Your task to perform on an android device: toggle pop-ups in chrome Image 0: 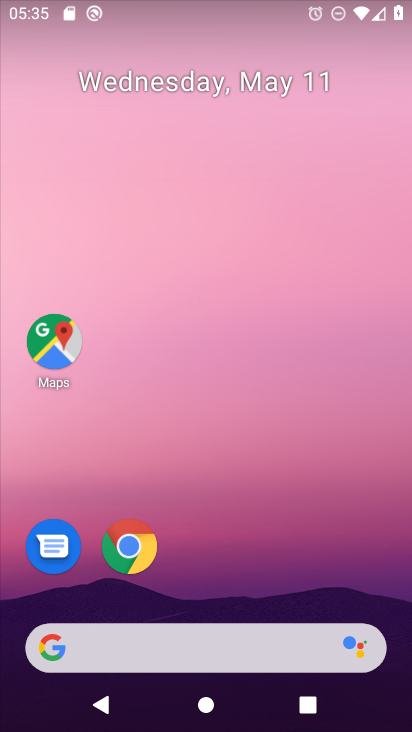
Step 0: drag from (314, 633) to (295, 75)
Your task to perform on an android device: toggle pop-ups in chrome Image 1: 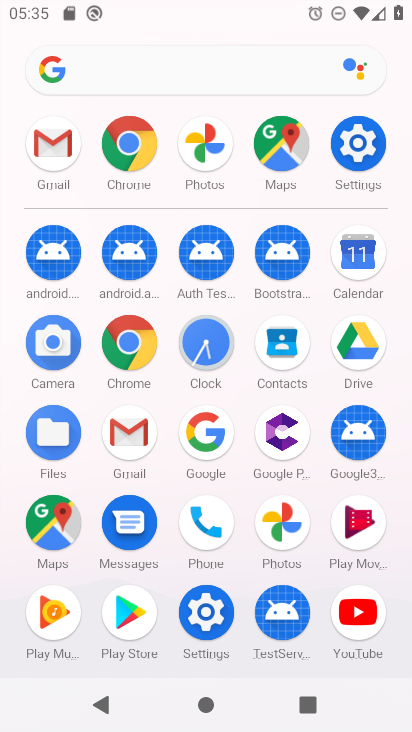
Step 1: click (133, 348)
Your task to perform on an android device: toggle pop-ups in chrome Image 2: 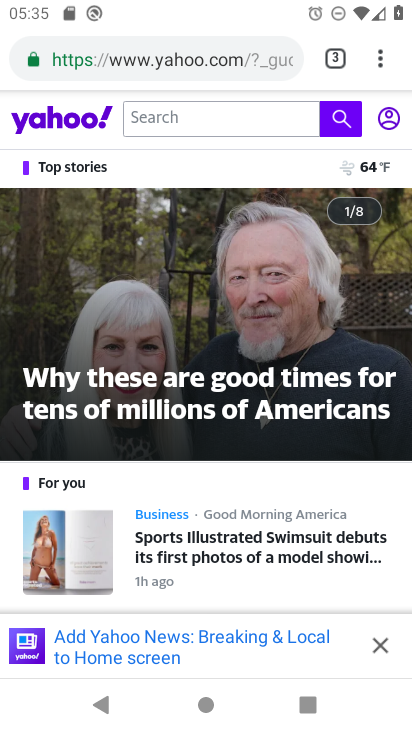
Step 2: drag from (372, 60) to (268, 650)
Your task to perform on an android device: toggle pop-ups in chrome Image 3: 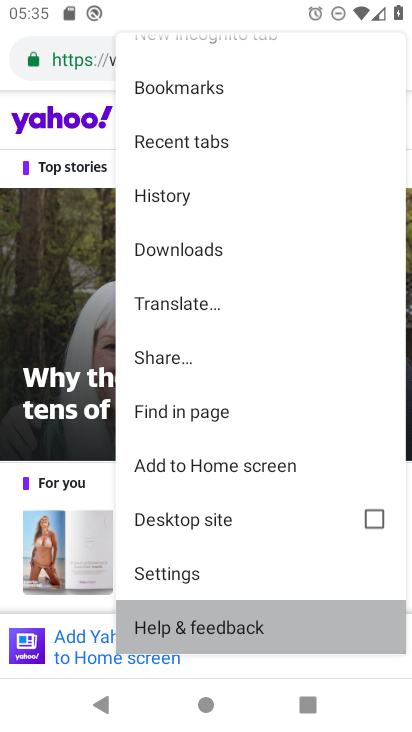
Step 3: click (273, 585)
Your task to perform on an android device: toggle pop-ups in chrome Image 4: 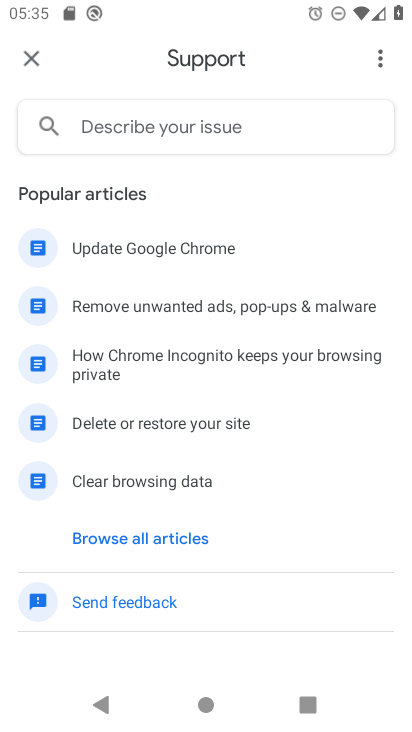
Step 4: press back button
Your task to perform on an android device: toggle pop-ups in chrome Image 5: 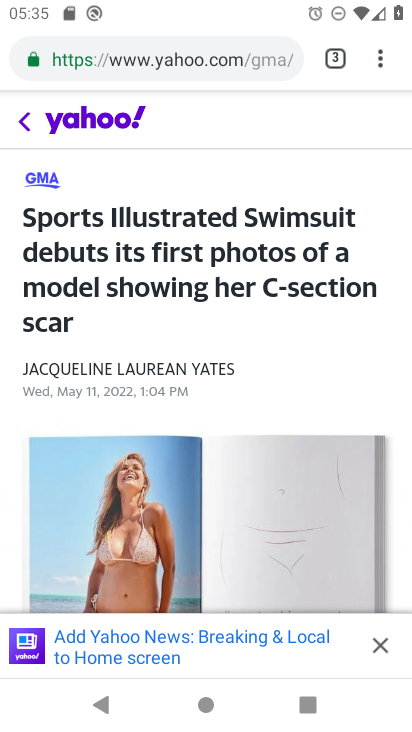
Step 5: press back button
Your task to perform on an android device: toggle pop-ups in chrome Image 6: 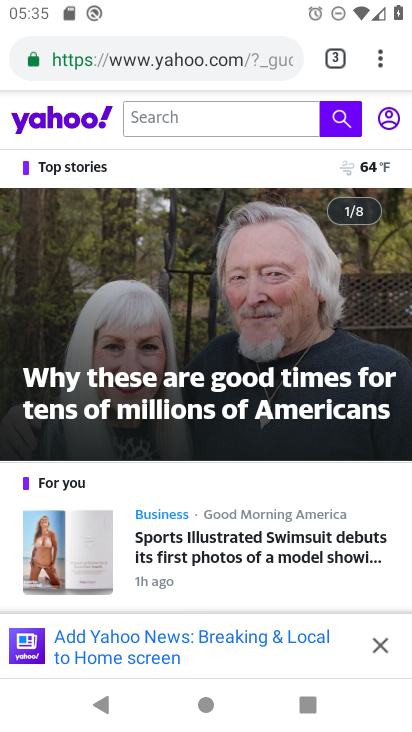
Step 6: click (378, 74)
Your task to perform on an android device: toggle pop-ups in chrome Image 7: 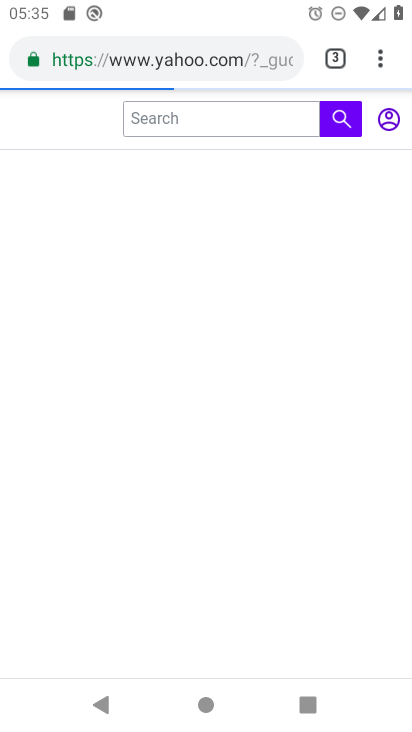
Step 7: drag from (378, 61) to (259, 574)
Your task to perform on an android device: toggle pop-ups in chrome Image 8: 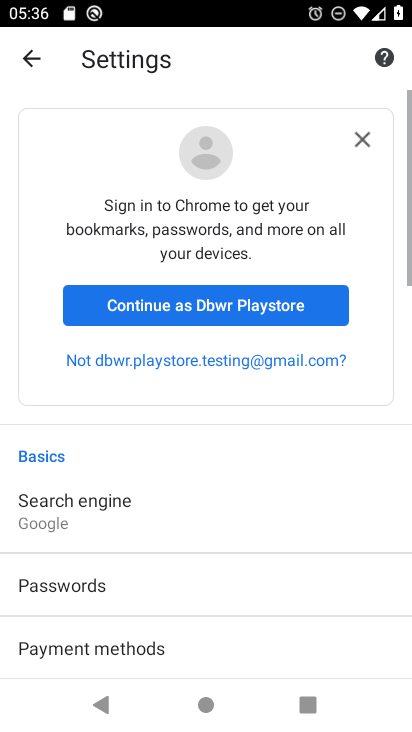
Step 8: drag from (228, 650) to (241, 274)
Your task to perform on an android device: toggle pop-ups in chrome Image 9: 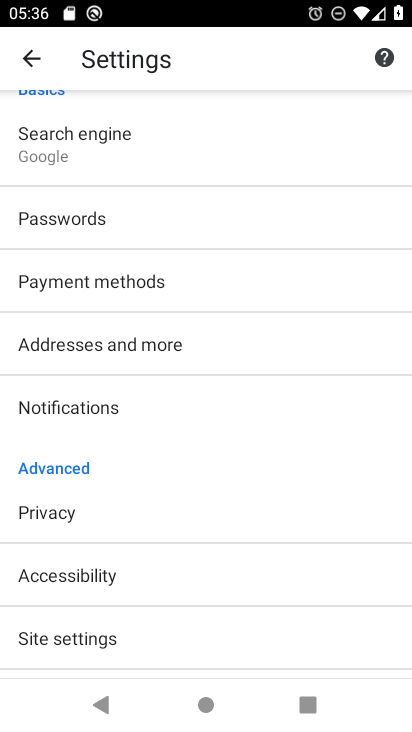
Step 9: click (70, 656)
Your task to perform on an android device: toggle pop-ups in chrome Image 10: 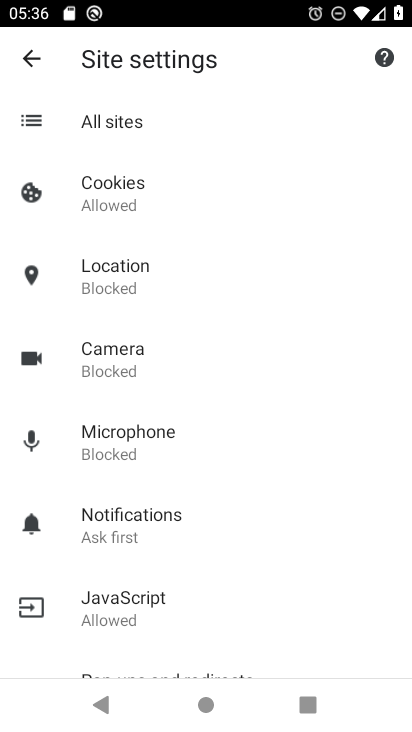
Step 10: drag from (162, 633) to (178, 434)
Your task to perform on an android device: toggle pop-ups in chrome Image 11: 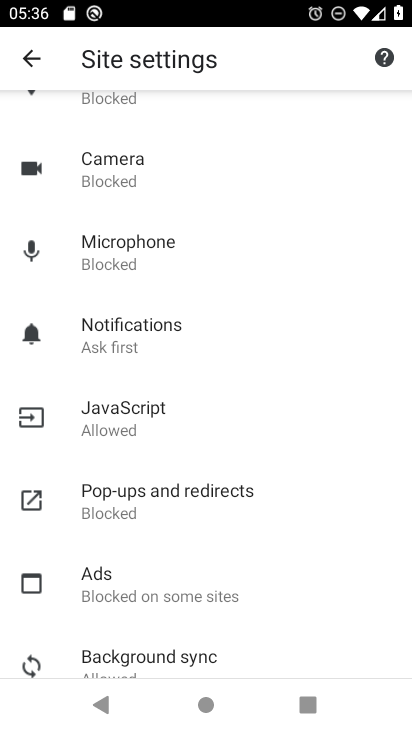
Step 11: click (141, 485)
Your task to perform on an android device: toggle pop-ups in chrome Image 12: 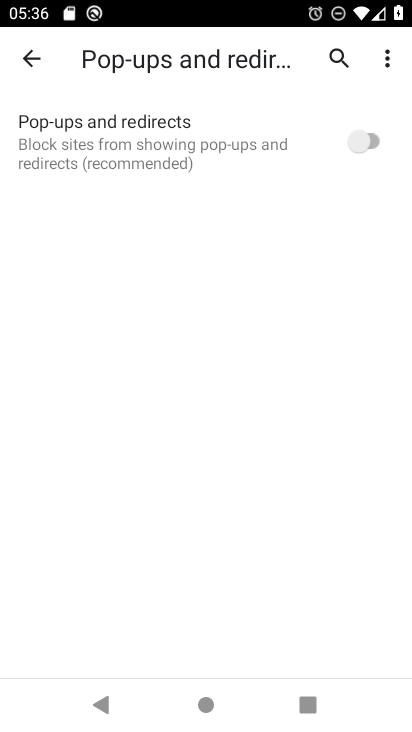
Step 12: click (358, 140)
Your task to perform on an android device: toggle pop-ups in chrome Image 13: 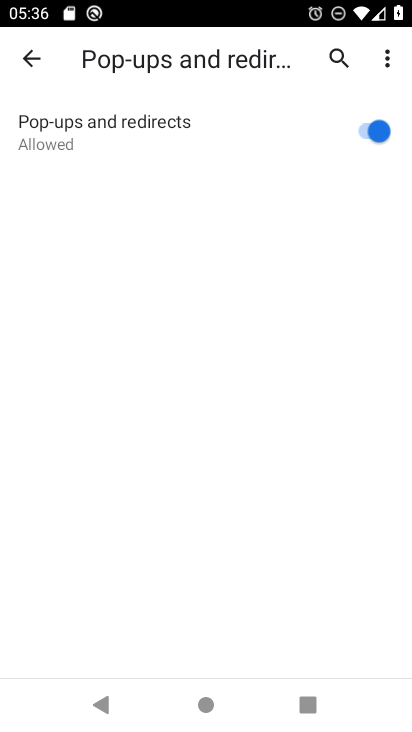
Step 13: task complete